Your task to perform on an android device: toggle airplane mode Image 0: 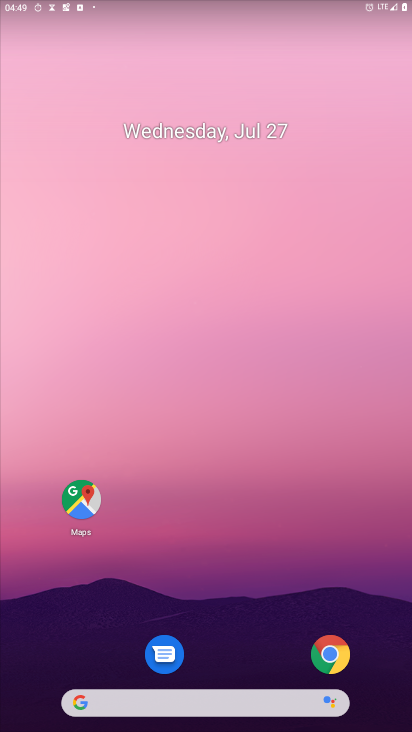
Step 0: drag from (199, 692) to (339, 35)
Your task to perform on an android device: toggle airplane mode Image 1: 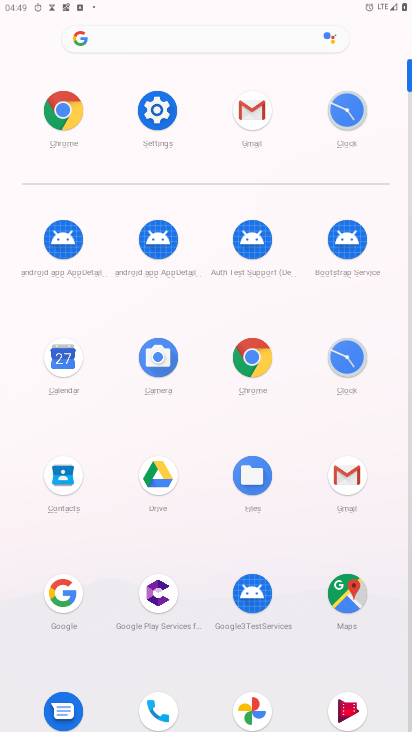
Step 1: click (168, 111)
Your task to perform on an android device: toggle airplane mode Image 2: 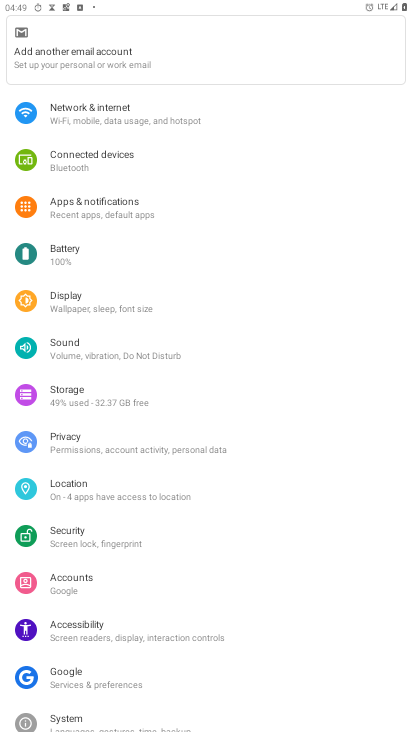
Step 2: click (126, 120)
Your task to perform on an android device: toggle airplane mode Image 3: 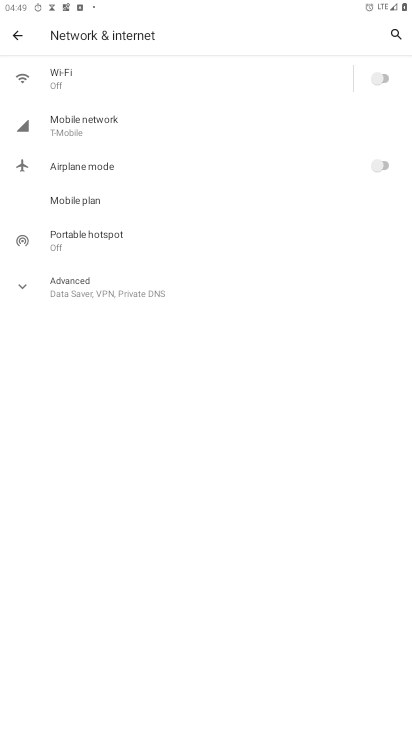
Step 3: click (378, 163)
Your task to perform on an android device: toggle airplane mode Image 4: 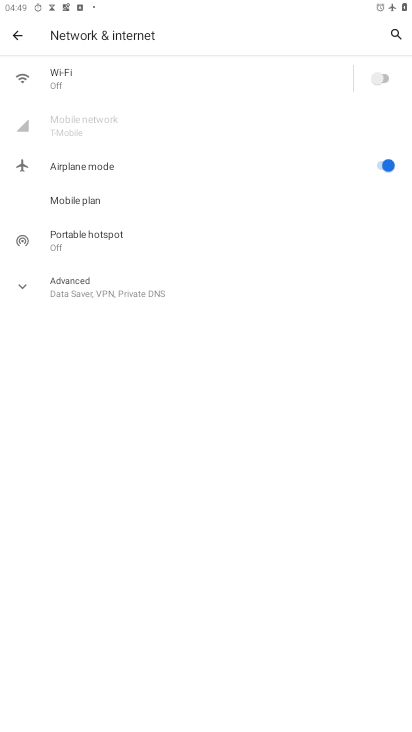
Step 4: task complete